Your task to perform on an android device: Open the calendar and show me this week's events Image 0: 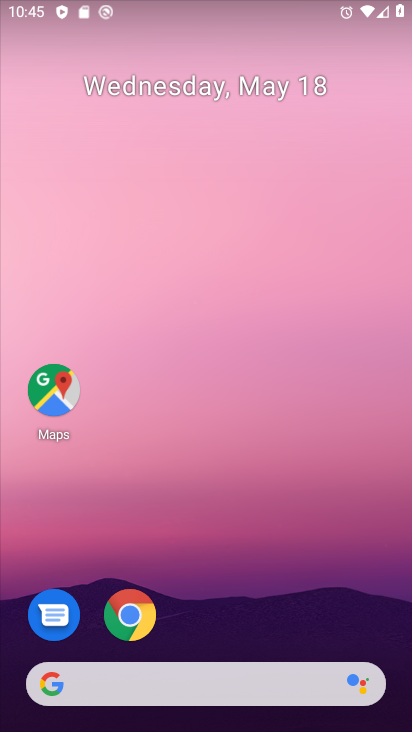
Step 0: drag from (199, 640) to (241, 175)
Your task to perform on an android device: Open the calendar and show me this week's events Image 1: 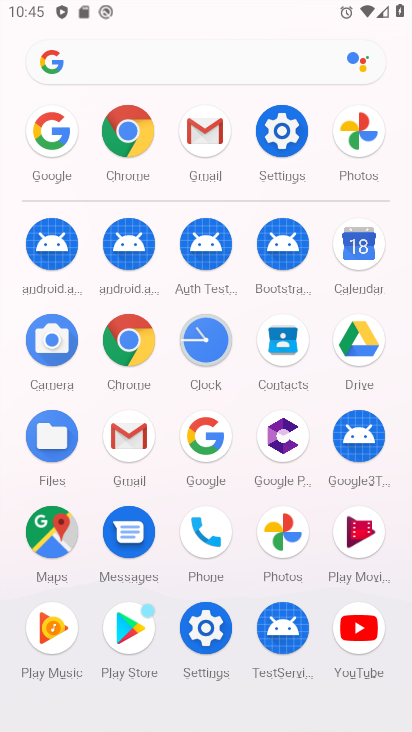
Step 1: click (371, 247)
Your task to perform on an android device: Open the calendar and show me this week's events Image 2: 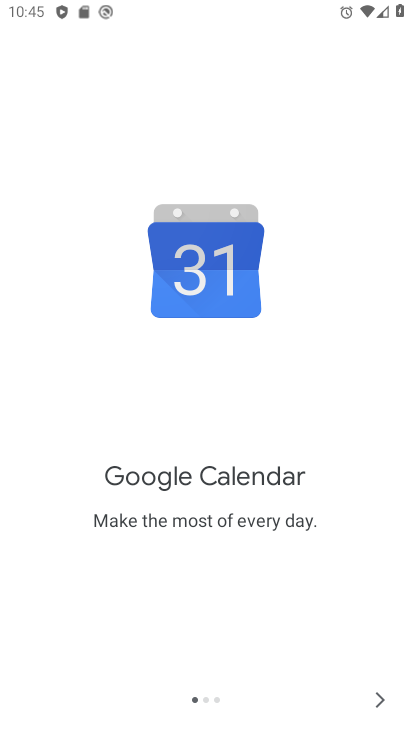
Step 2: click (378, 701)
Your task to perform on an android device: Open the calendar and show me this week's events Image 3: 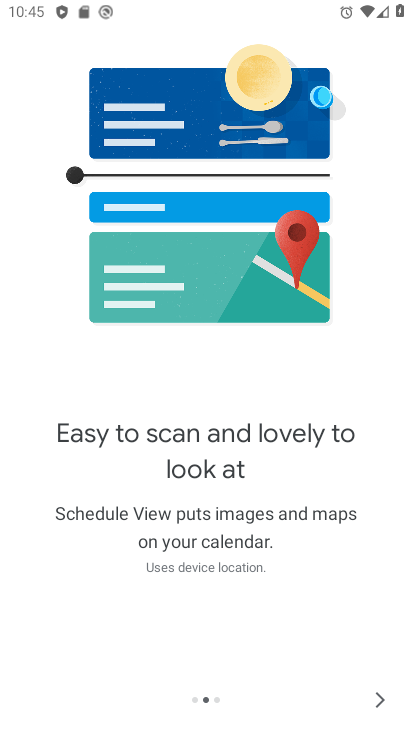
Step 3: click (378, 701)
Your task to perform on an android device: Open the calendar and show me this week's events Image 4: 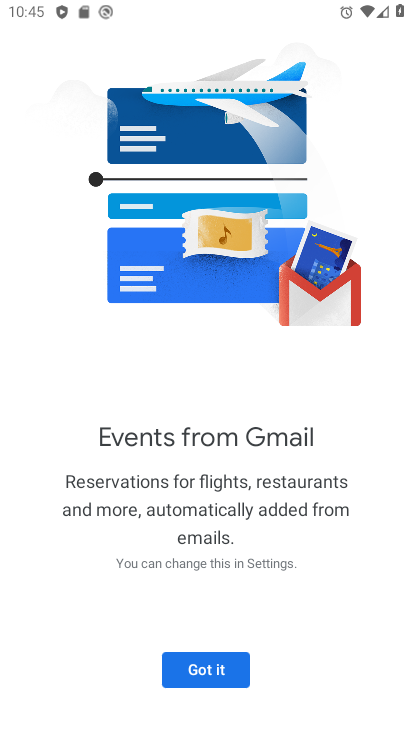
Step 4: click (185, 671)
Your task to perform on an android device: Open the calendar and show me this week's events Image 5: 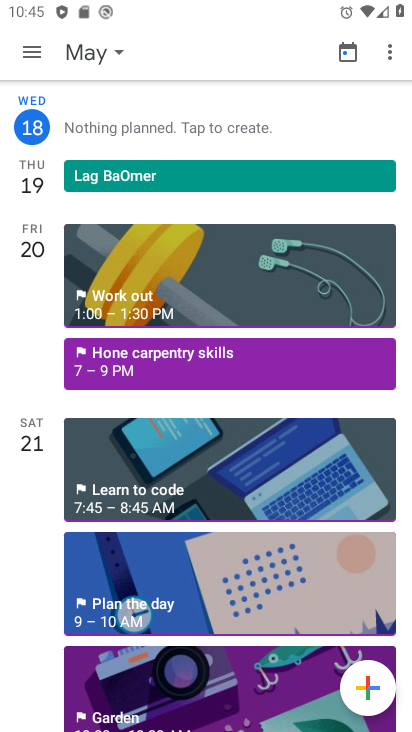
Step 5: click (96, 56)
Your task to perform on an android device: Open the calendar and show me this week's events Image 6: 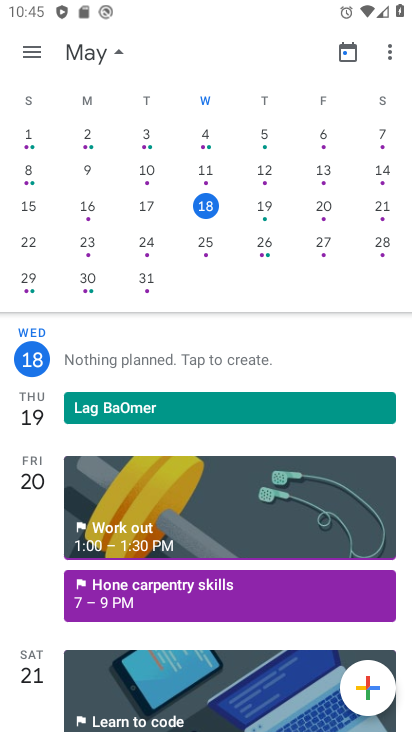
Step 6: click (379, 205)
Your task to perform on an android device: Open the calendar and show me this week's events Image 7: 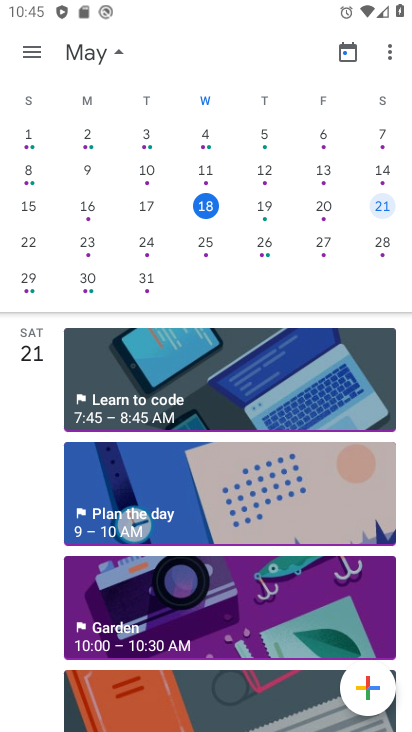
Step 7: task complete